Your task to perform on an android device: toggle notifications settings in the gmail app Image 0: 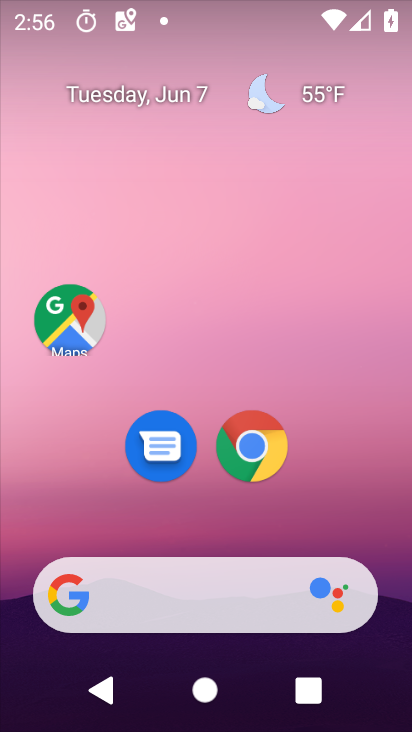
Step 0: drag from (189, 469) to (246, 242)
Your task to perform on an android device: toggle notifications settings in the gmail app Image 1: 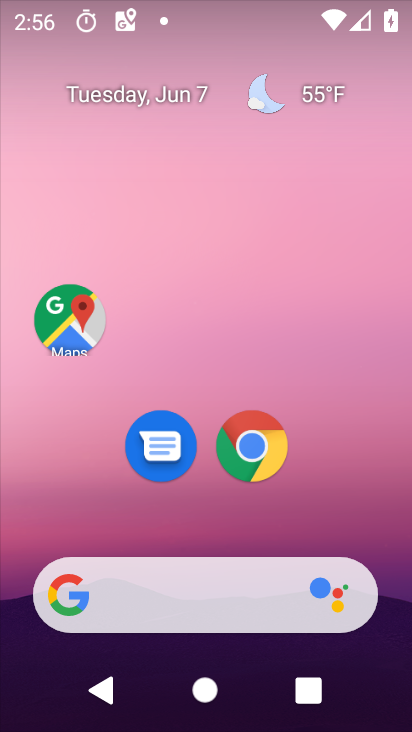
Step 1: drag from (223, 458) to (248, 98)
Your task to perform on an android device: toggle notifications settings in the gmail app Image 2: 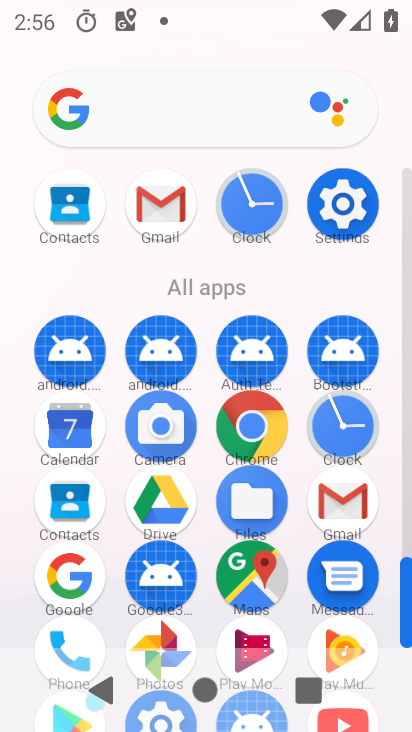
Step 2: click (345, 495)
Your task to perform on an android device: toggle notifications settings in the gmail app Image 3: 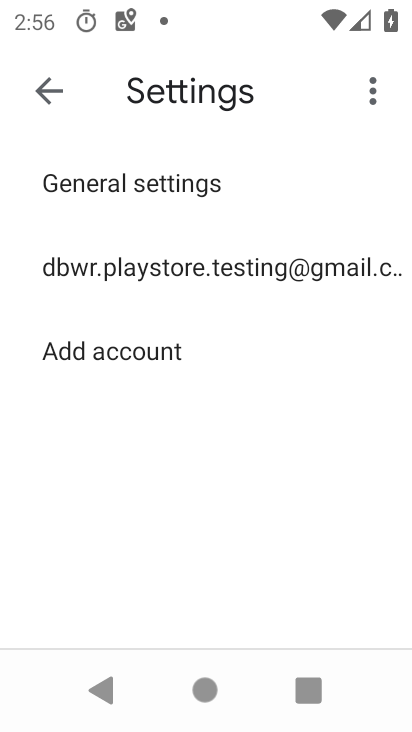
Step 3: click (168, 186)
Your task to perform on an android device: toggle notifications settings in the gmail app Image 4: 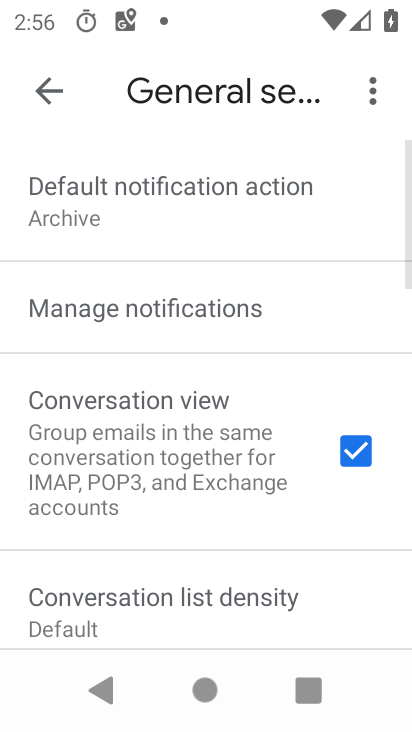
Step 4: click (183, 315)
Your task to perform on an android device: toggle notifications settings in the gmail app Image 5: 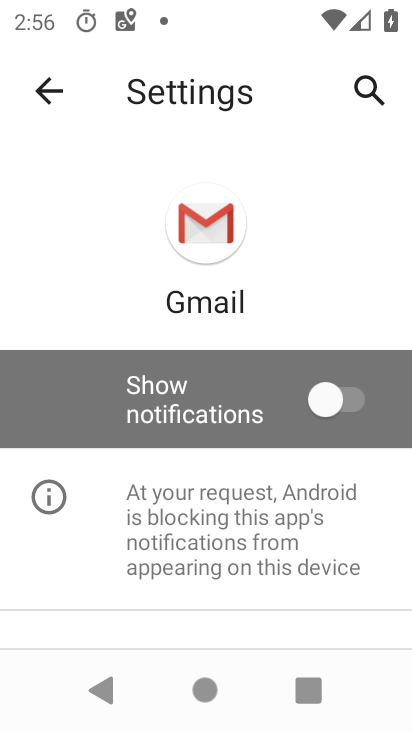
Step 5: click (352, 399)
Your task to perform on an android device: toggle notifications settings in the gmail app Image 6: 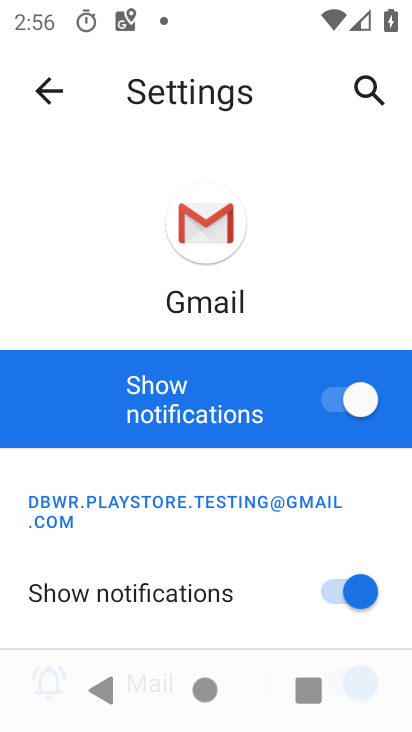
Step 6: task complete